Your task to perform on an android device: check out phone information Image 0: 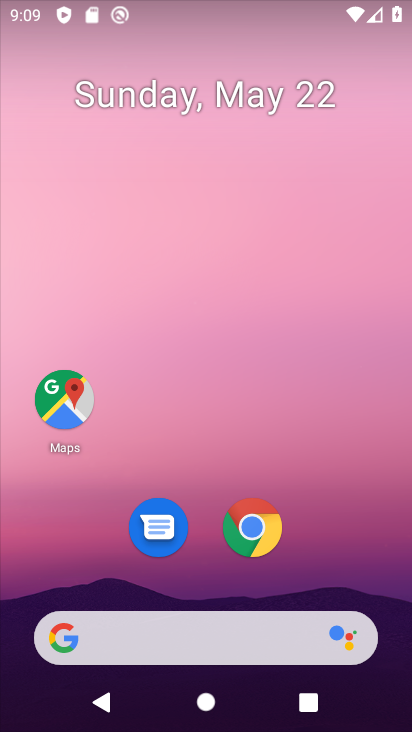
Step 0: drag from (342, 535) to (285, 9)
Your task to perform on an android device: check out phone information Image 1: 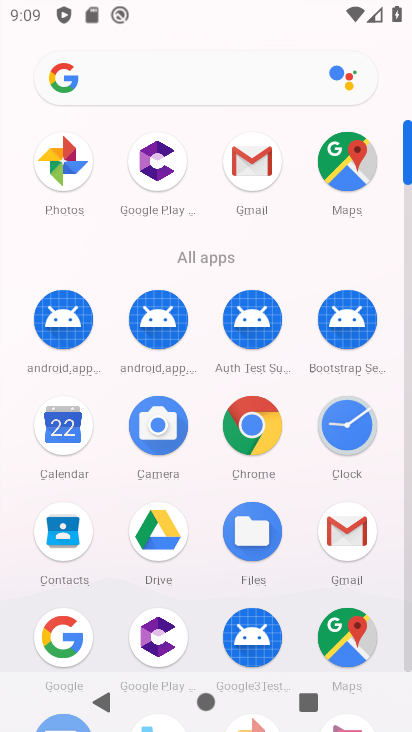
Step 1: click (406, 640)
Your task to perform on an android device: check out phone information Image 2: 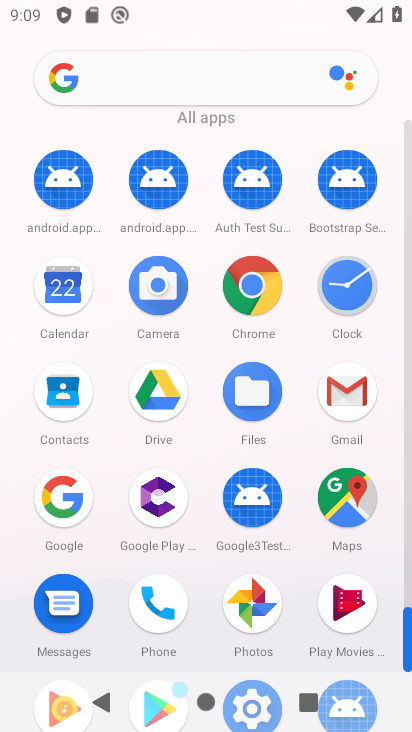
Step 2: click (406, 640)
Your task to perform on an android device: check out phone information Image 3: 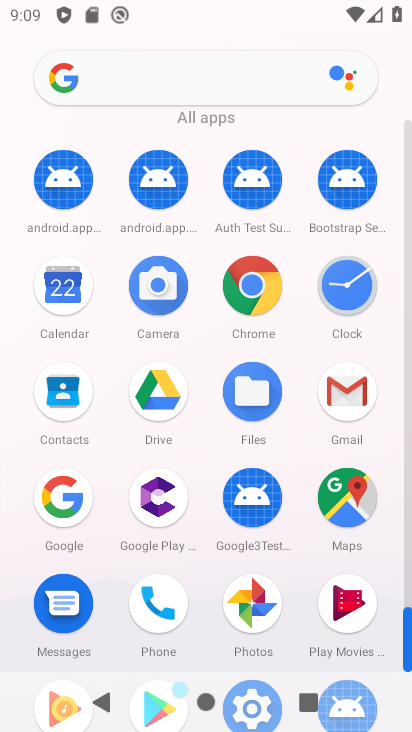
Step 3: drag from (407, 633) to (411, 698)
Your task to perform on an android device: check out phone information Image 4: 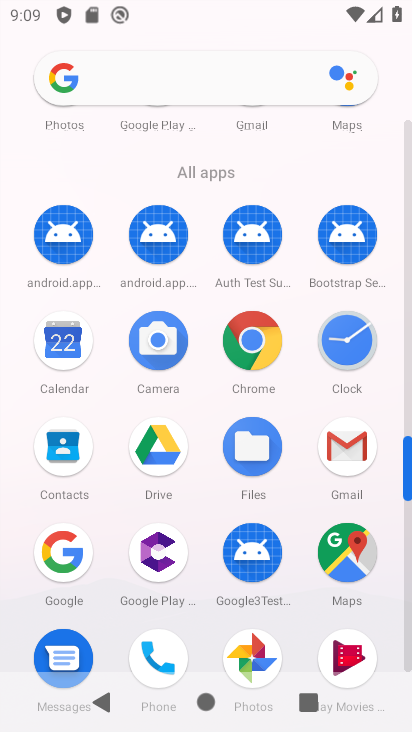
Step 4: click (408, 553)
Your task to perform on an android device: check out phone information Image 5: 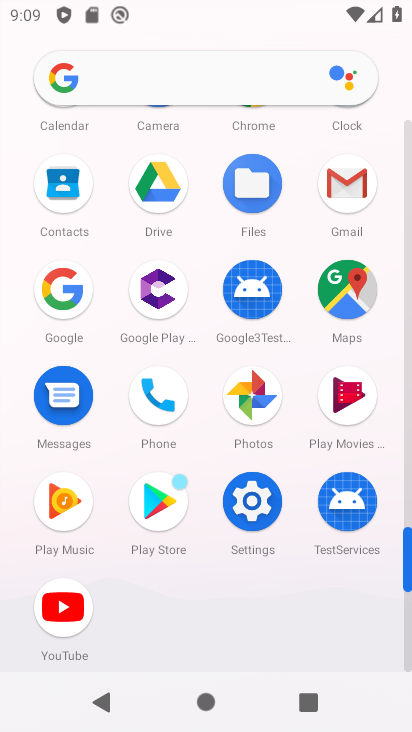
Step 5: click (258, 529)
Your task to perform on an android device: check out phone information Image 6: 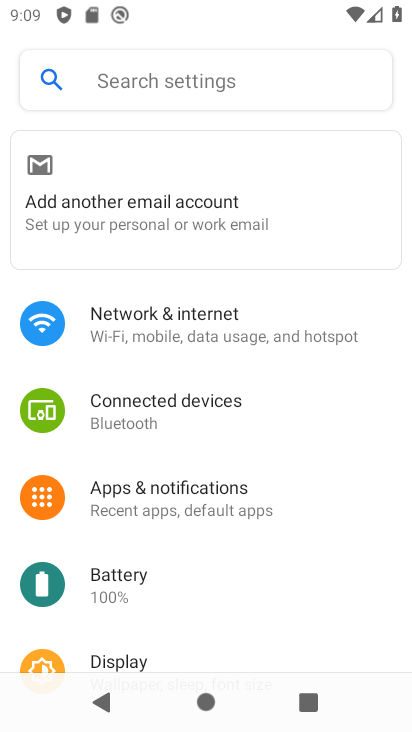
Step 6: drag from (209, 547) to (257, 26)
Your task to perform on an android device: check out phone information Image 7: 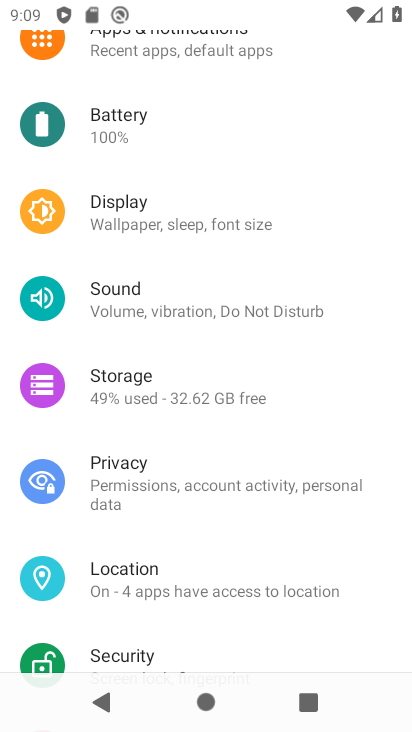
Step 7: drag from (232, 616) to (354, 22)
Your task to perform on an android device: check out phone information Image 8: 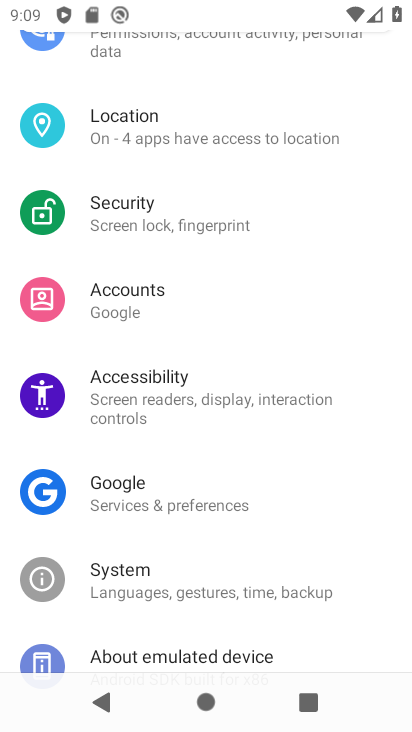
Step 8: click (291, 602)
Your task to perform on an android device: check out phone information Image 9: 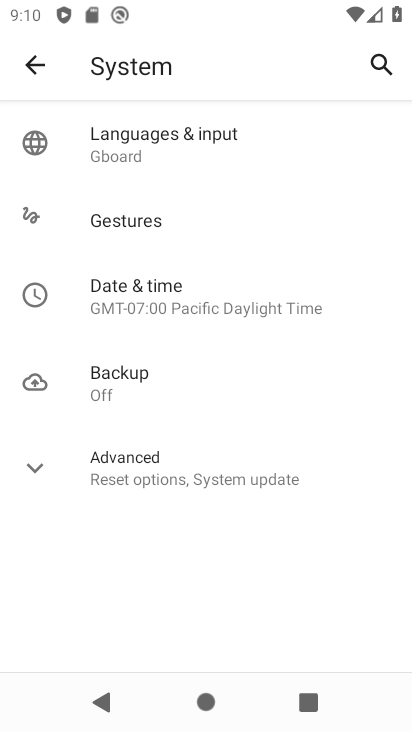
Step 9: task complete